Your task to perform on an android device: check google app version Image 0: 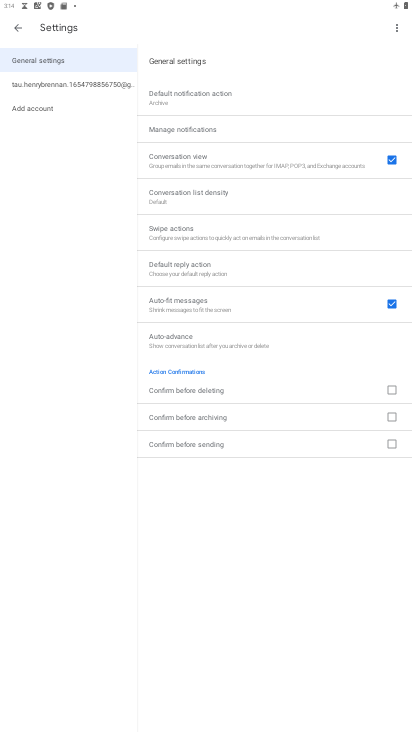
Step 0: press home button
Your task to perform on an android device: check google app version Image 1: 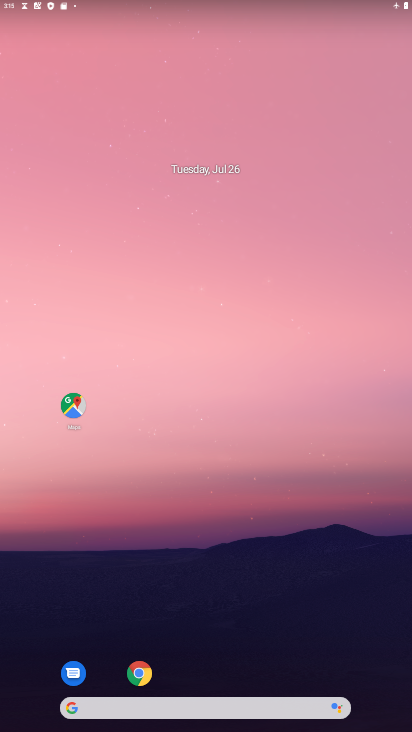
Step 1: drag from (193, 703) to (284, 80)
Your task to perform on an android device: check google app version Image 2: 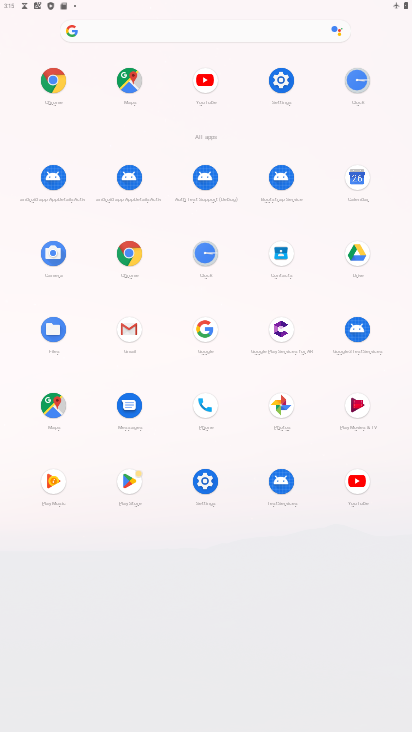
Step 2: click (203, 330)
Your task to perform on an android device: check google app version Image 3: 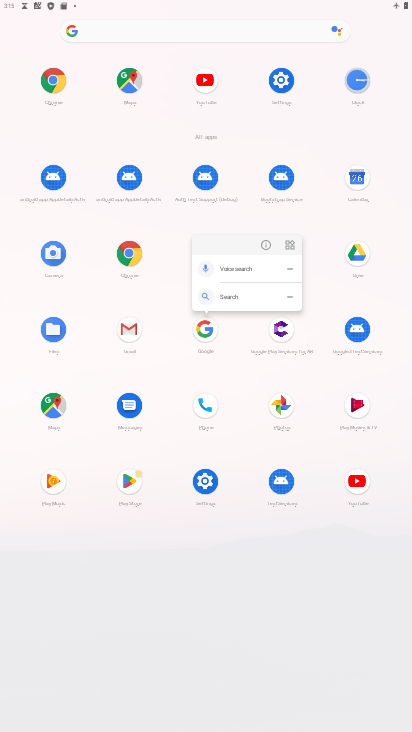
Step 3: click (264, 246)
Your task to perform on an android device: check google app version Image 4: 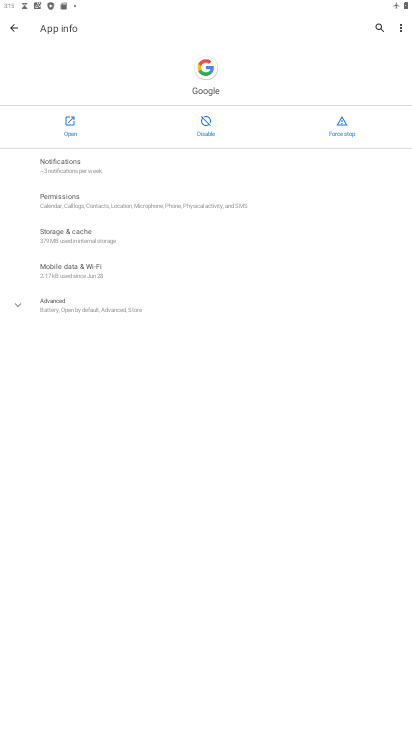
Step 4: click (75, 309)
Your task to perform on an android device: check google app version Image 5: 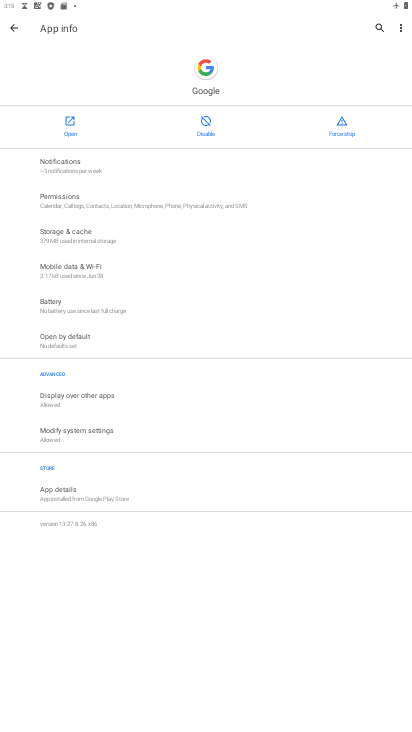
Step 5: task complete